Your task to perform on an android device: turn on improve location accuracy Image 0: 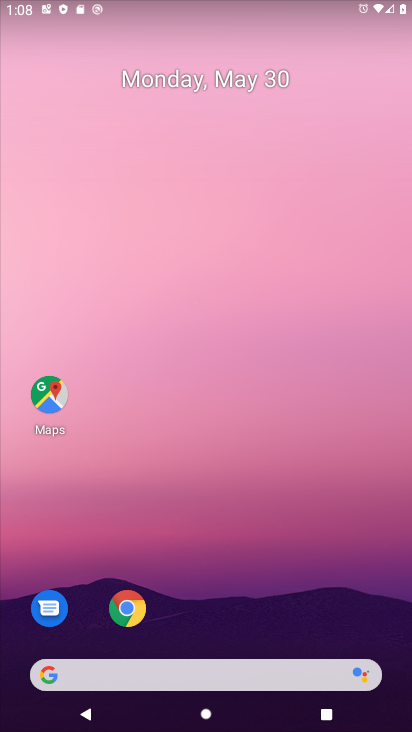
Step 0: drag from (206, 597) to (193, 337)
Your task to perform on an android device: turn on improve location accuracy Image 1: 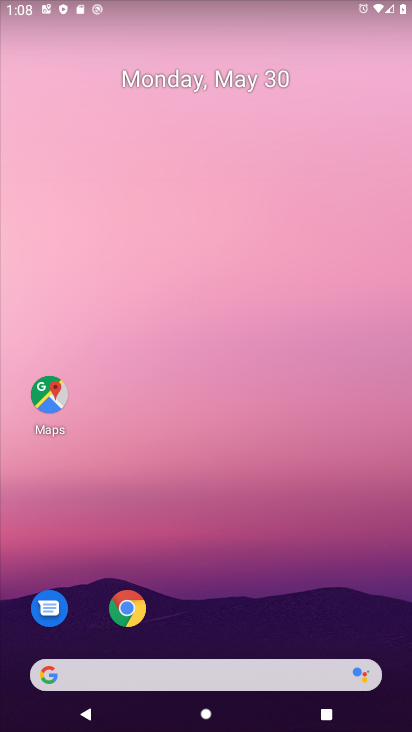
Step 1: drag from (225, 599) to (277, 288)
Your task to perform on an android device: turn on improve location accuracy Image 2: 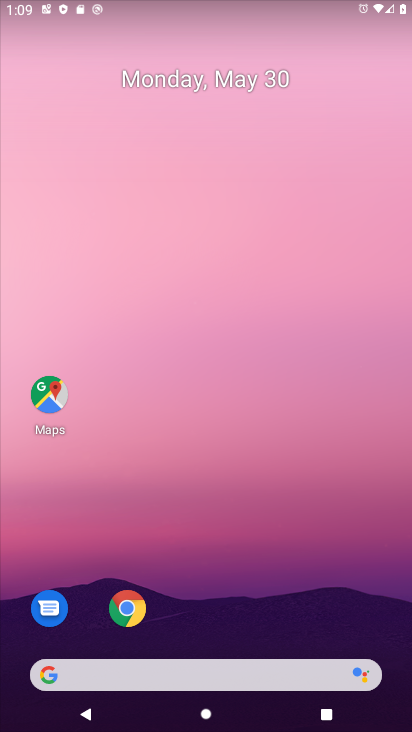
Step 2: drag from (273, 708) to (277, 313)
Your task to perform on an android device: turn on improve location accuracy Image 3: 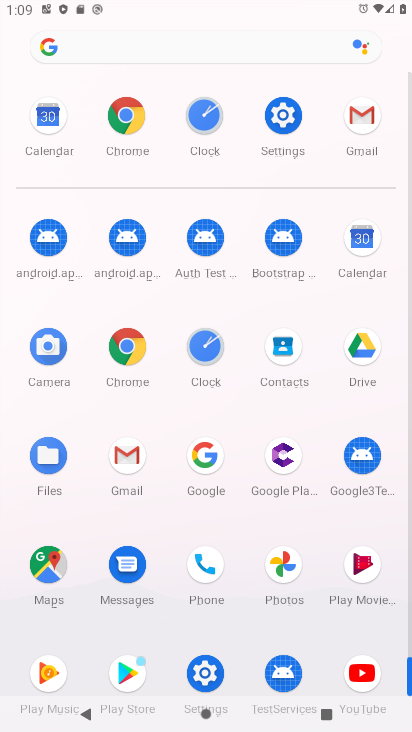
Step 3: click (279, 131)
Your task to perform on an android device: turn on improve location accuracy Image 4: 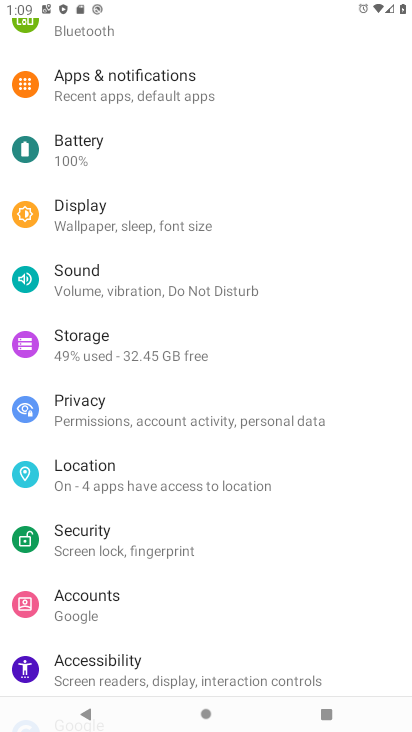
Step 4: click (112, 473)
Your task to perform on an android device: turn on improve location accuracy Image 5: 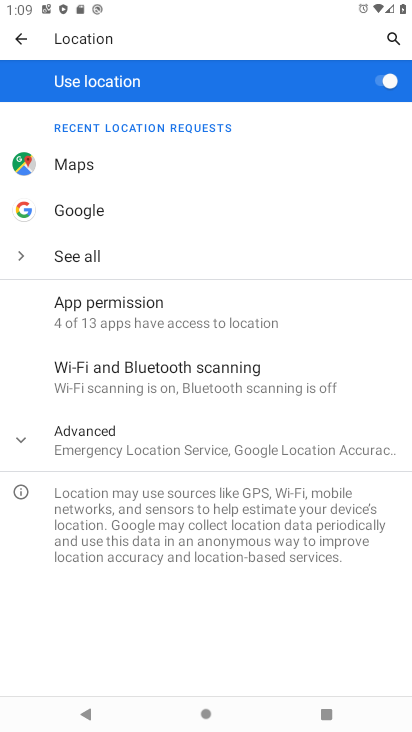
Step 5: click (144, 430)
Your task to perform on an android device: turn on improve location accuracy Image 6: 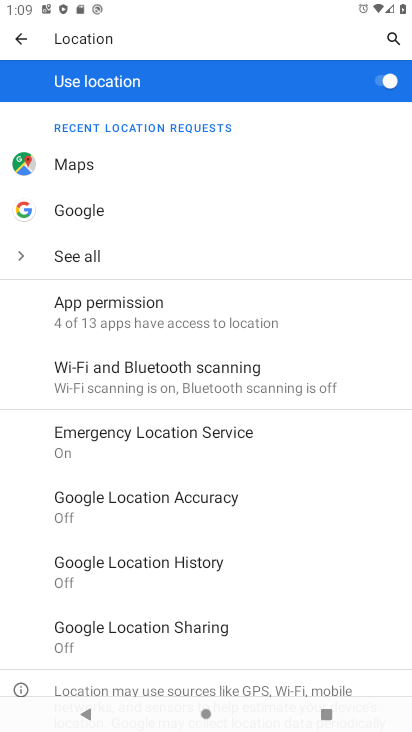
Step 6: click (180, 507)
Your task to perform on an android device: turn on improve location accuracy Image 7: 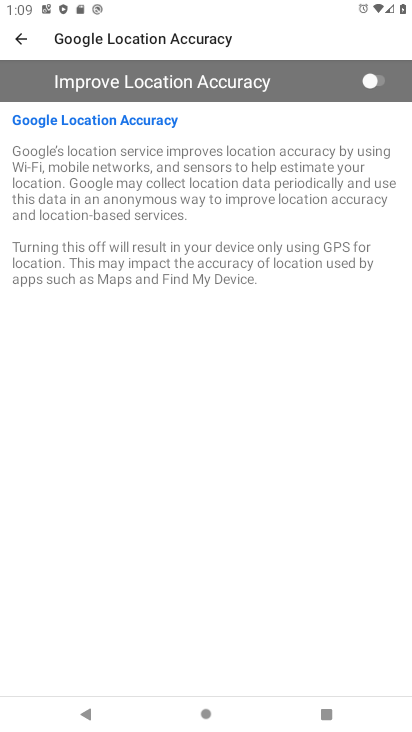
Step 7: click (364, 79)
Your task to perform on an android device: turn on improve location accuracy Image 8: 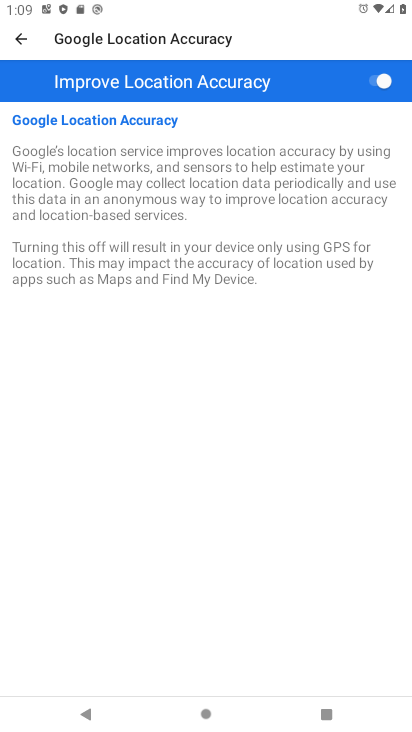
Step 8: task complete